Your task to perform on an android device: When is my next appointment? Image 0: 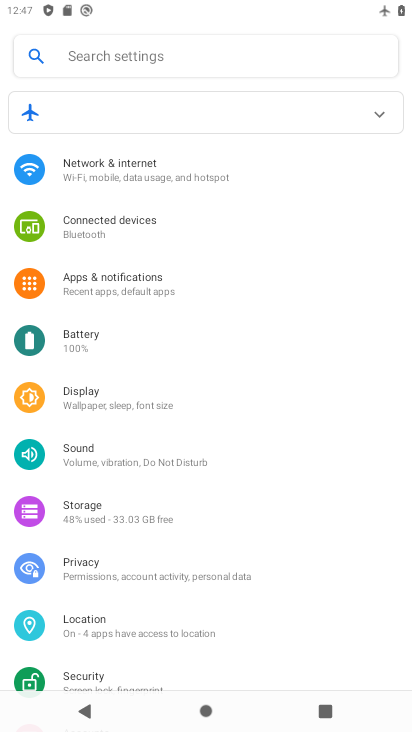
Step 0: press home button
Your task to perform on an android device: When is my next appointment? Image 1: 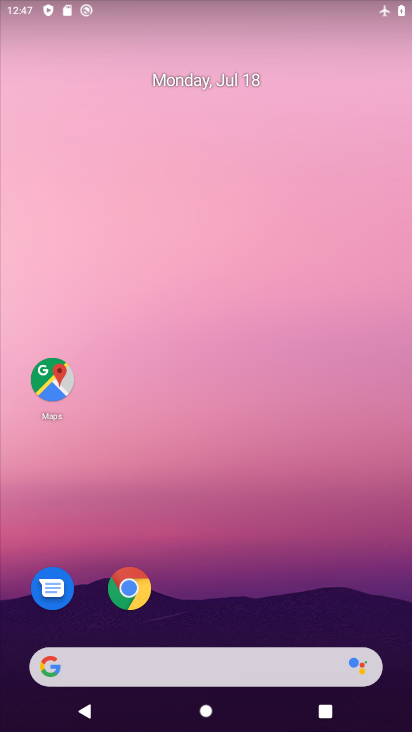
Step 1: drag from (216, 657) to (196, 152)
Your task to perform on an android device: When is my next appointment? Image 2: 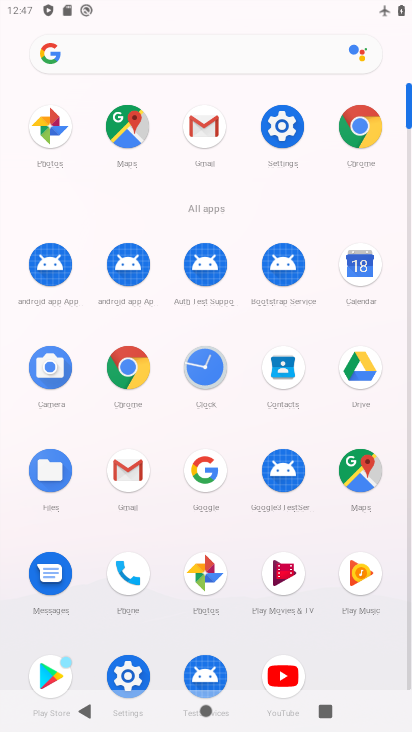
Step 2: click (352, 273)
Your task to perform on an android device: When is my next appointment? Image 3: 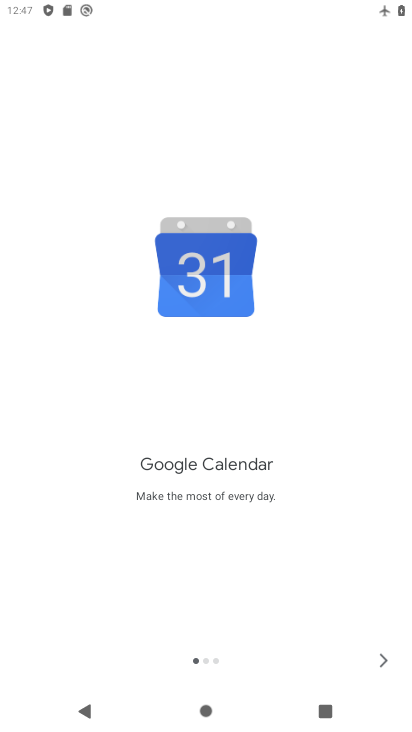
Step 3: click (379, 653)
Your task to perform on an android device: When is my next appointment? Image 4: 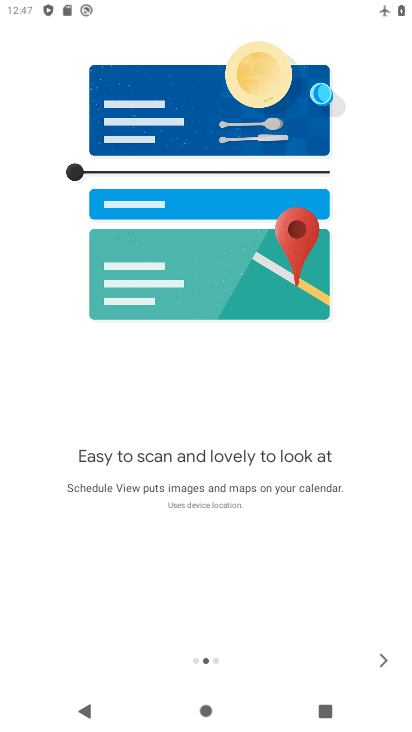
Step 4: click (379, 653)
Your task to perform on an android device: When is my next appointment? Image 5: 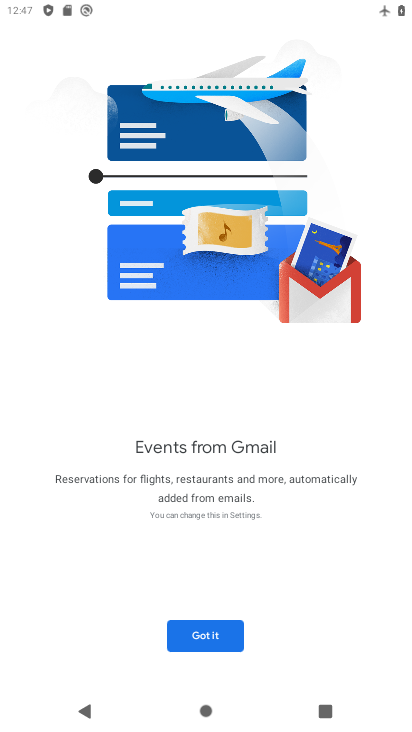
Step 5: click (379, 653)
Your task to perform on an android device: When is my next appointment? Image 6: 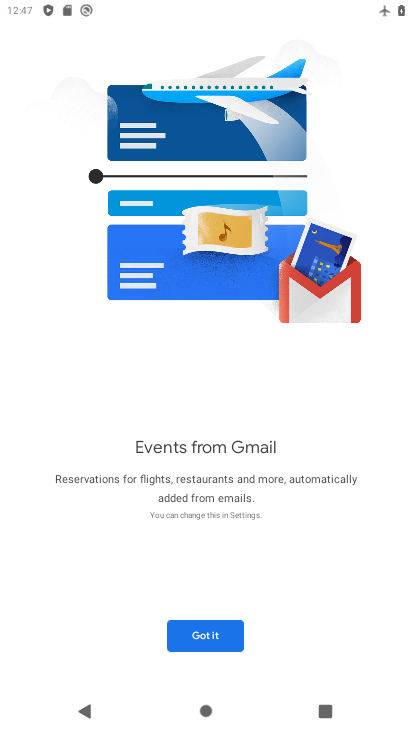
Step 6: click (216, 645)
Your task to perform on an android device: When is my next appointment? Image 7: 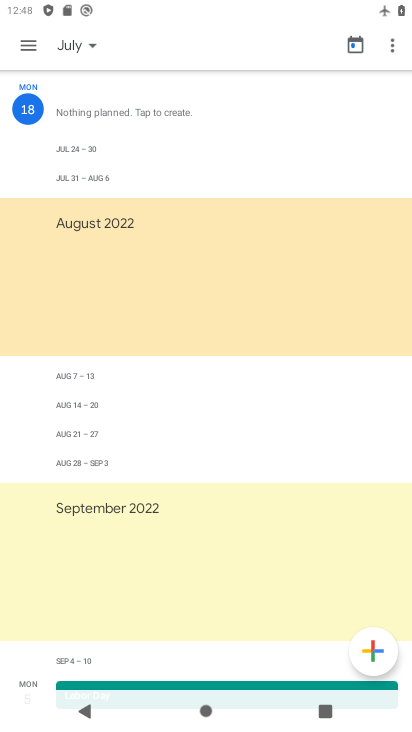
Step 7: click (31, 46)
Your task to perform on an android device: When is my next appointment? Image 8: 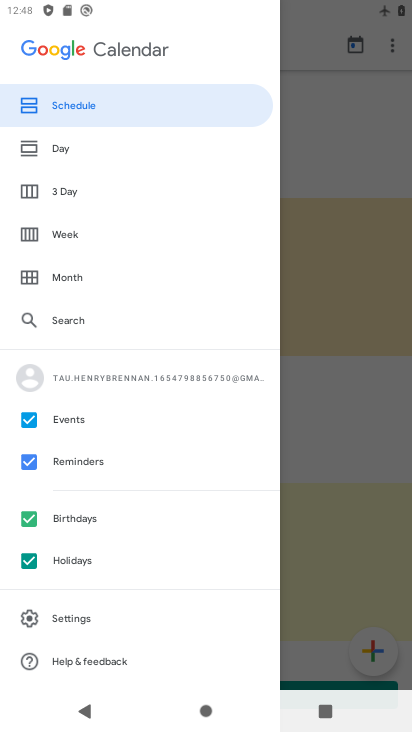
Step 8: click (75, 115)
Your task to perform on an android device: When is my next appointment? Image 9: 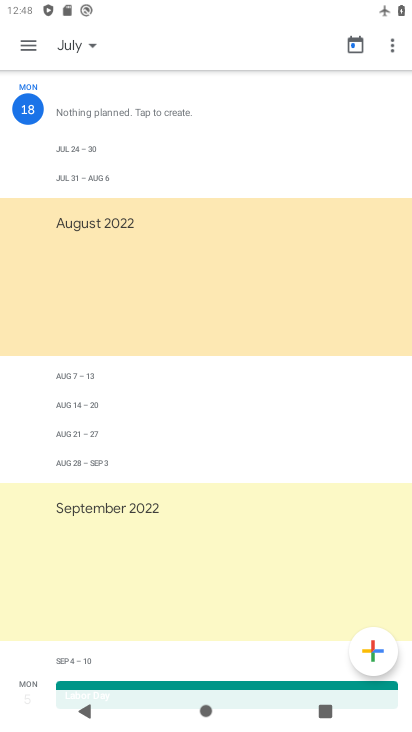
Step 9: task complete